Your task to perform on an android device: Open Android settings Image 0: 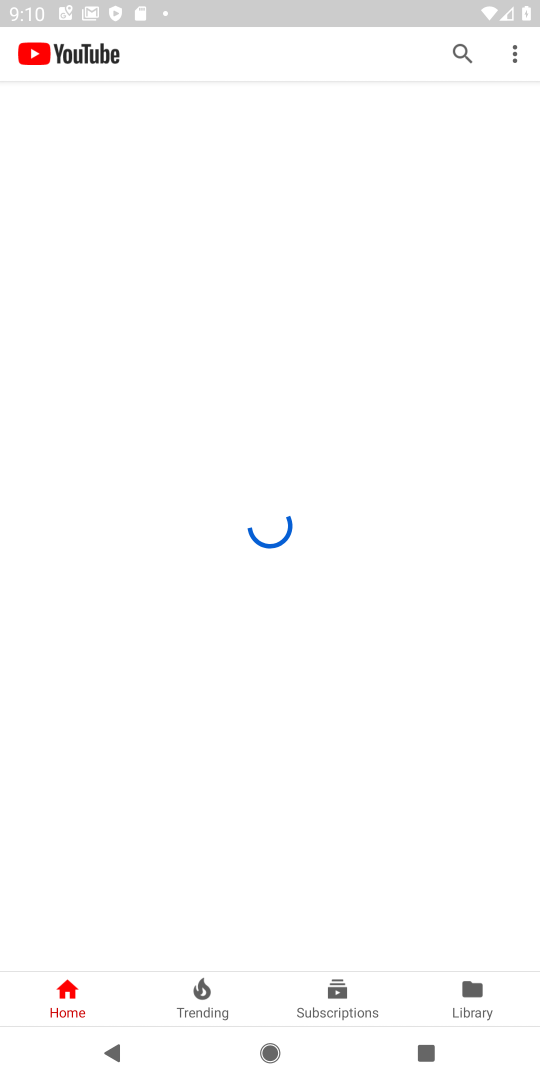
Step 0: press home button
Your task to perform on an android device: Open Android settings Image 1: 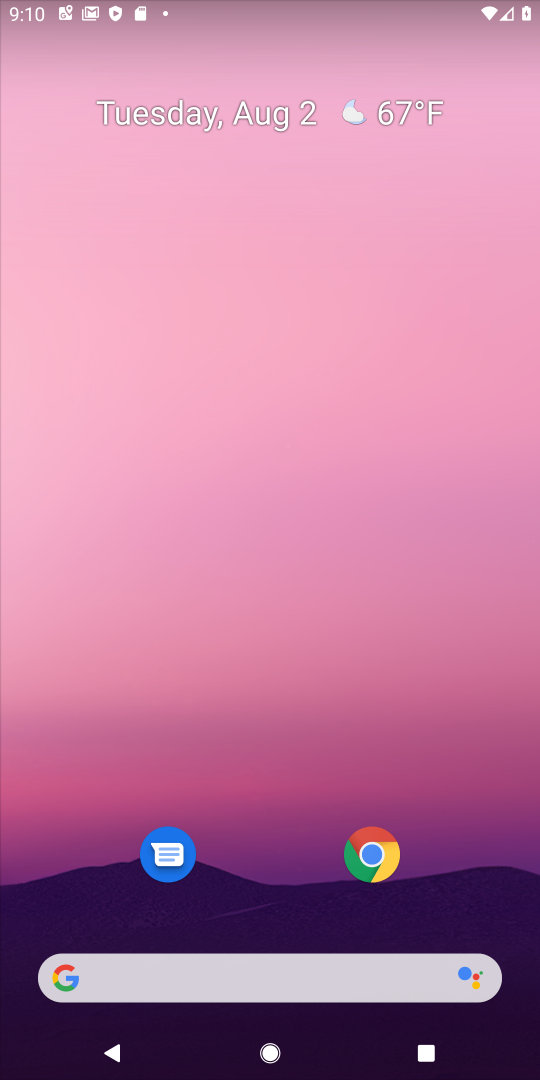
Step 1: drag from (308, 910) to (364, 206)
Your task to perform on an android device: Open Android settings Image 2: 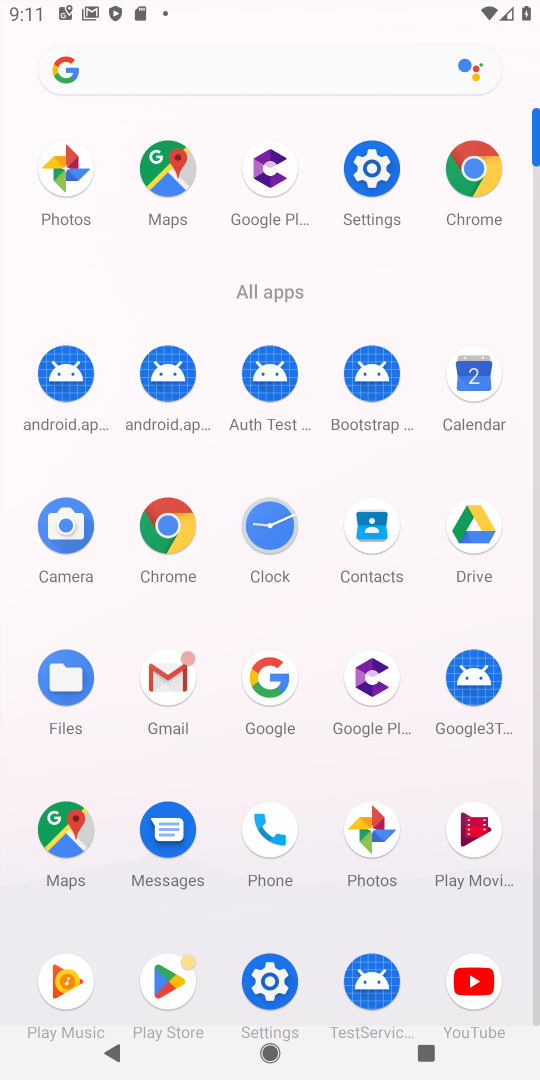
Step 2: click (369, 184)
Your task to perform on an android device: Open Android settings Image 3: 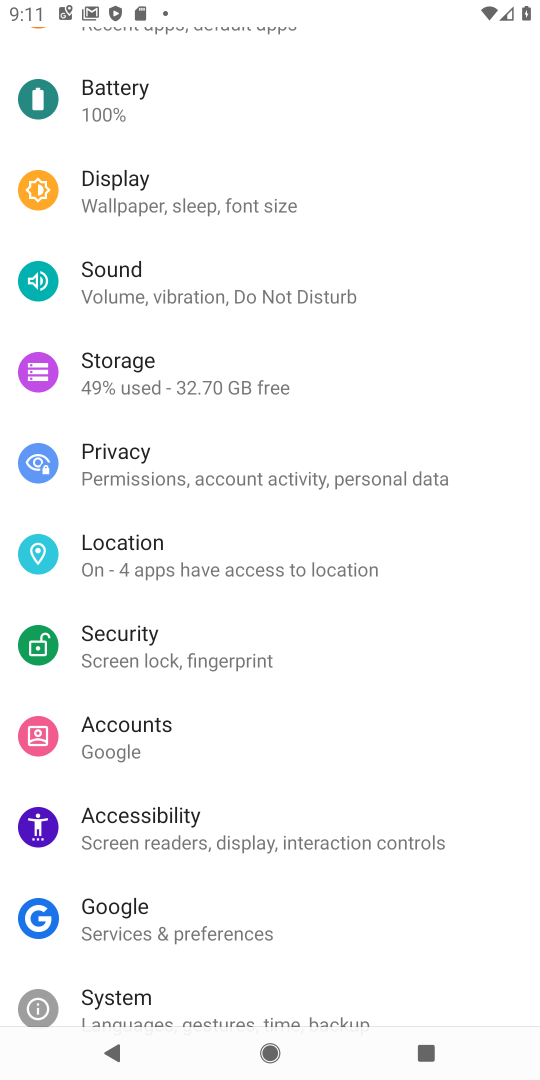
Step 3: task complete